Your task to perform on an android device: Open the phone app and click the voicemail tab. Image 0: 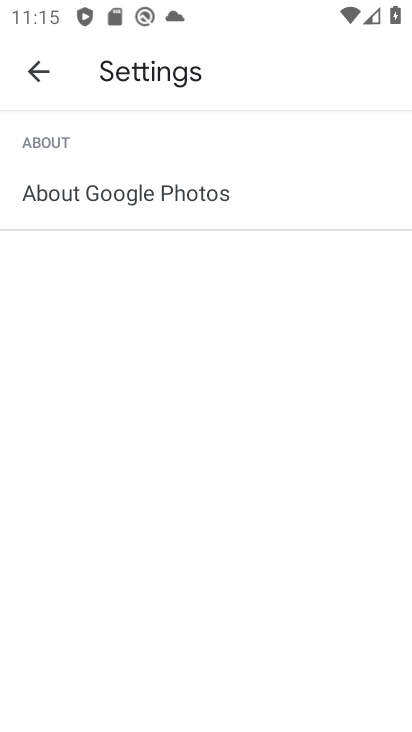
Step 0: press home button
Your task to perform on an android device: Open the phone app and click the voicemail tab. Image 1: 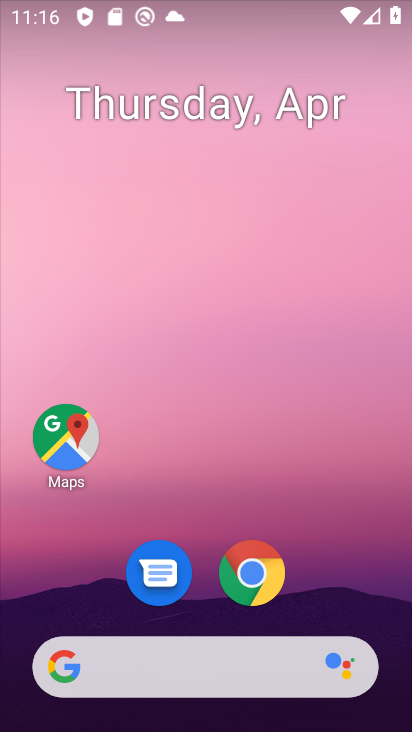
Step 1: drag from (317, 433) to (303, 134)
Your task to perform on an android device: Open the phone app and click the voicemail tab. Image 2: 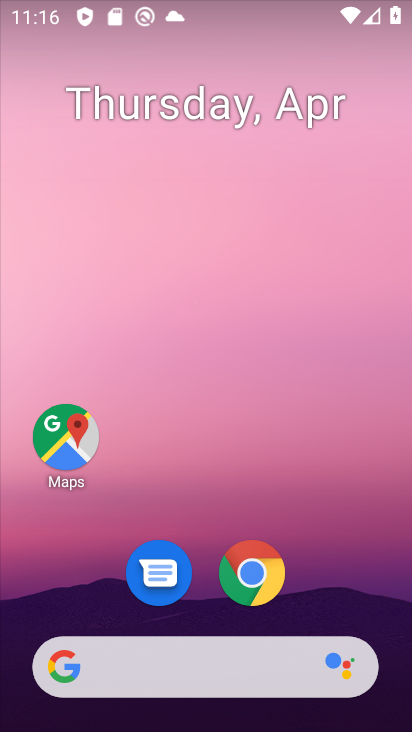
Step 2: drag from (336, 459) to (347, 75)
Your task to perform on an android device: Open the phone app and click the voicemail tab. Image 3: 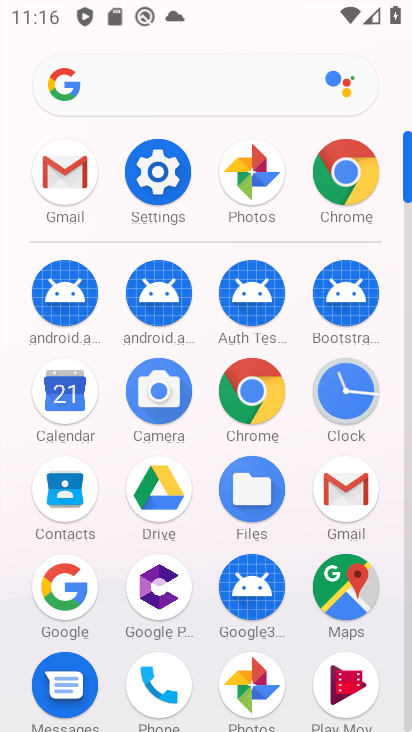
Step 3: click (179, 679)
Your task to perform on an android device: Open the phone app and click the voicemail tab. Image 4: 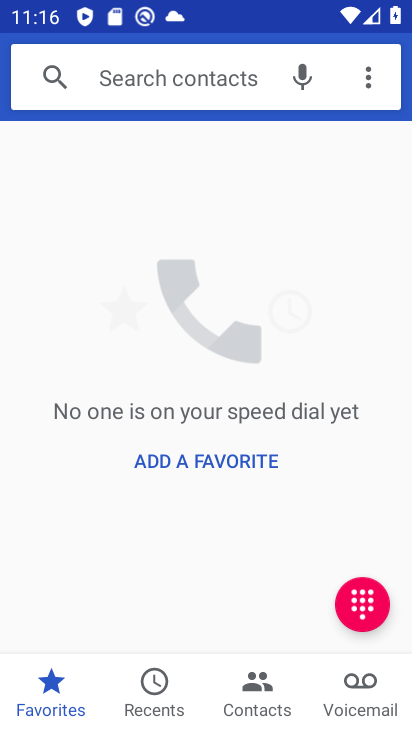
Step 4: click (367, 688)
Your task to perform on an android device: Open the phone app and click the voicemail tab. Image 5: 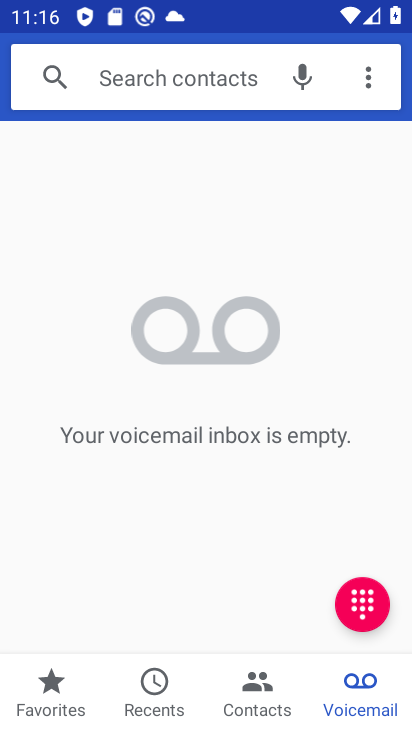
Step 5: task complete